Your task to perform on an android device: Open the map Image 0: 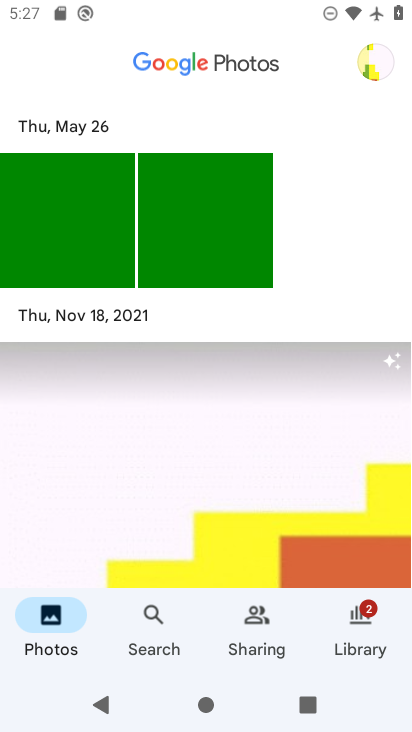
Step 0: press home button
Your task to perform on an android device: Open the map Image 1: 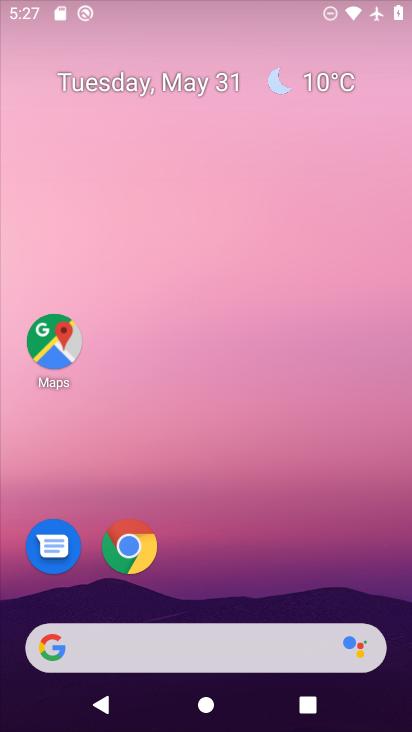
Step 1: click (63, 336)
Your task to perform on an android device: Open the map Image 2: 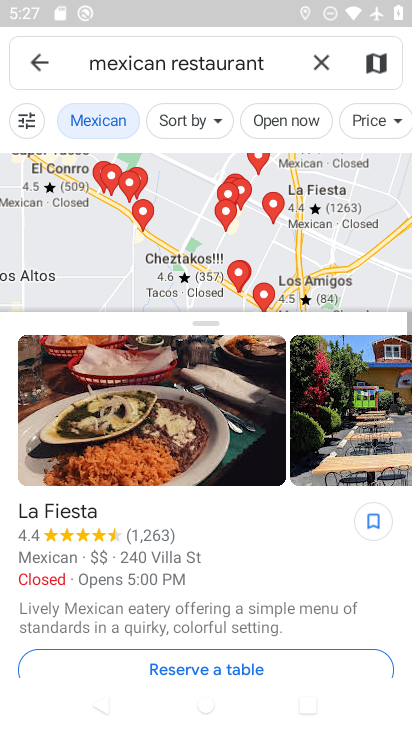
Step 2: task complete